Your task to perform on an android device: What is the speed of a rocket? Image 0: 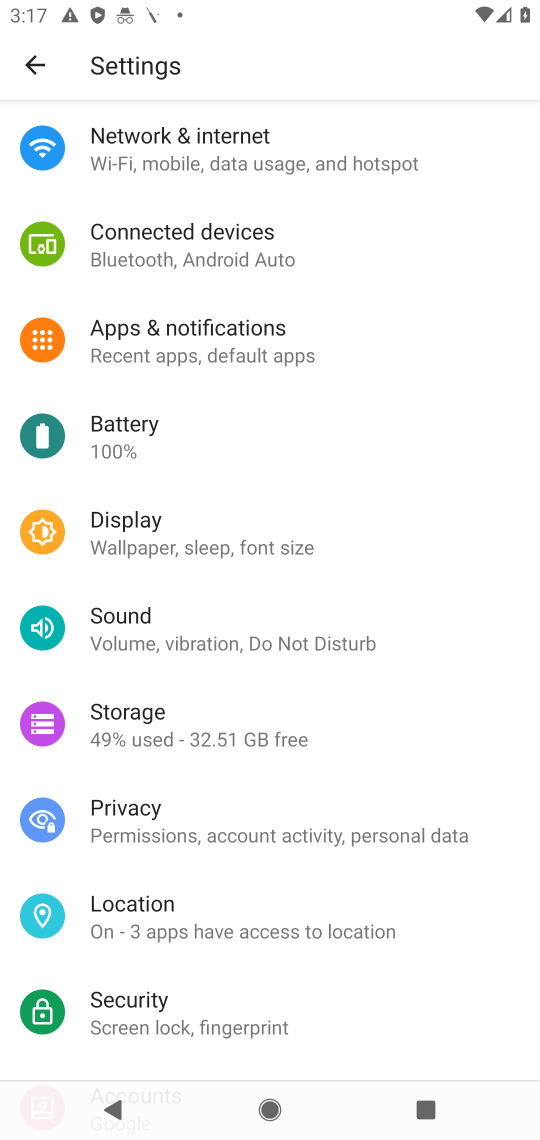
Step 0: press home button
Your task to perform on an android device: What is the speed of a rocket? Image 1: 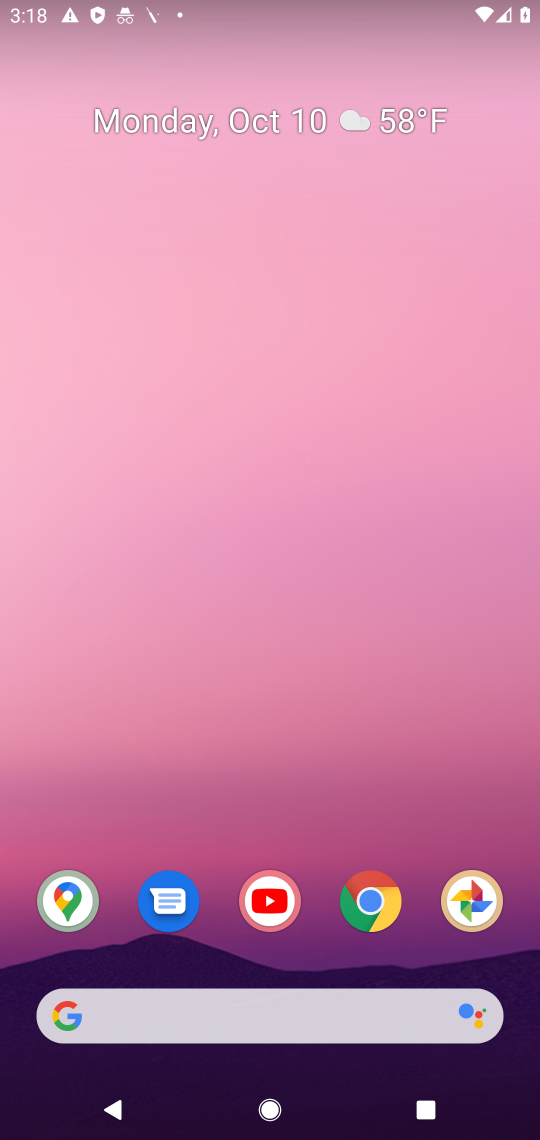
Step 1: drag from (399, 966) to (423, 445)
Your task to perform on an android device: What is the speed of a rocket? Image 2: 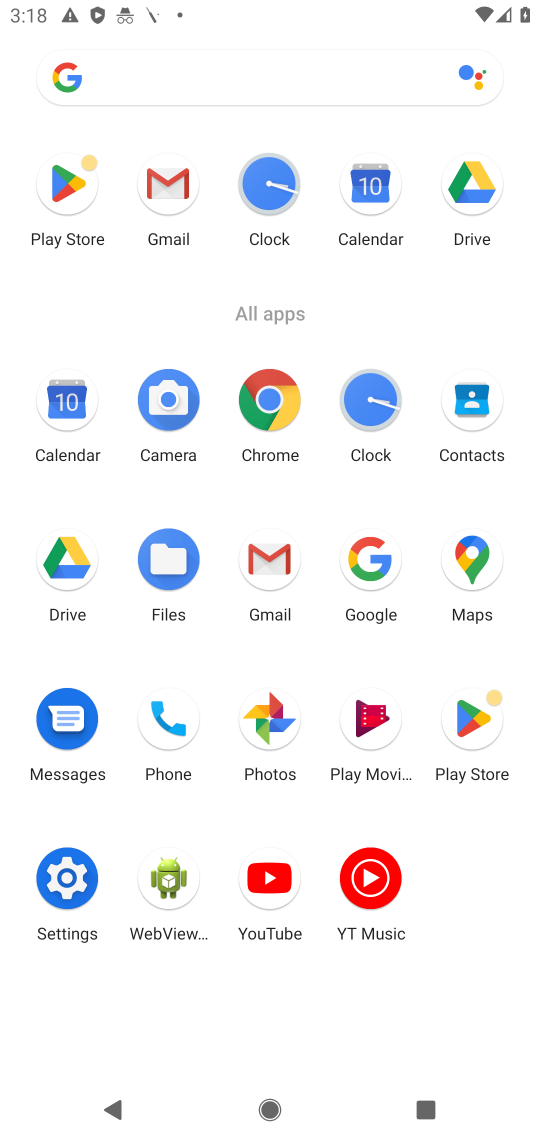
Step 2: click (361, 582)
Your task to perform on an android device: What is the speed of a rocket? Image 3: 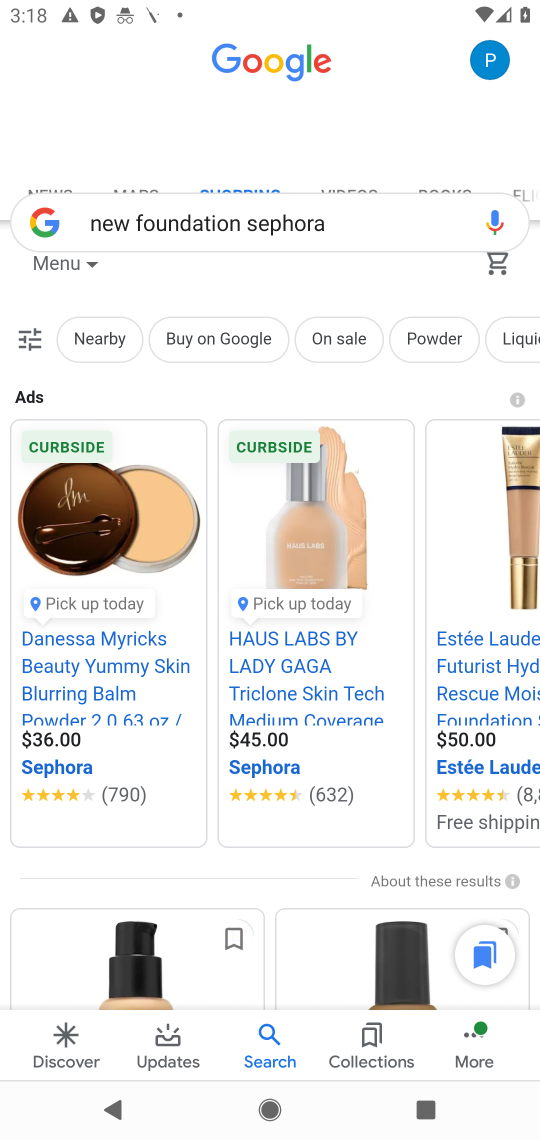
Step 3: click (380, 222)
Your task to perform on an android device: What is the speed of a rocket? Image 4: 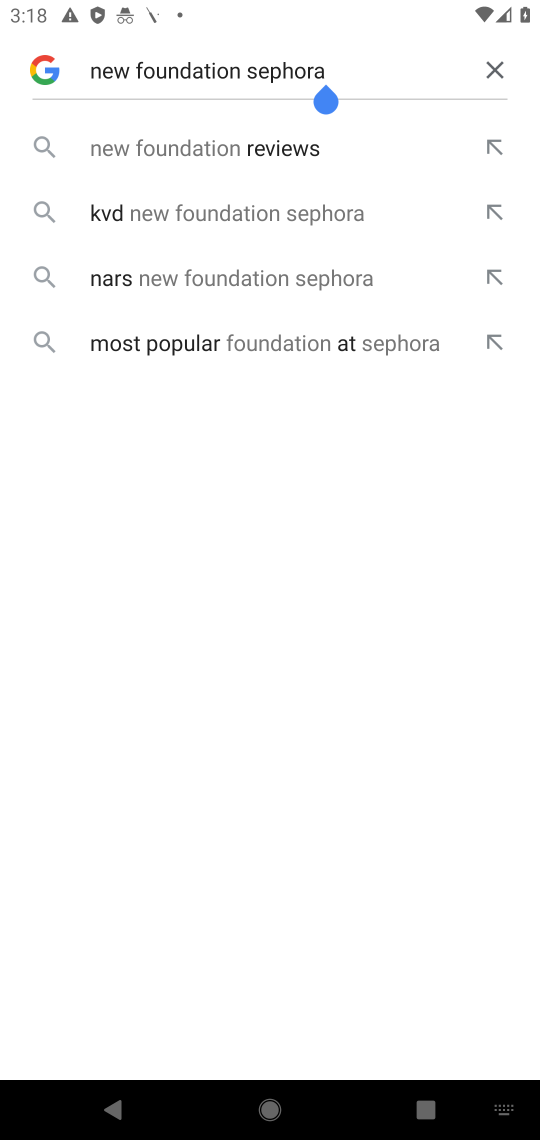
Step 4: click (497, 75)
Your task to perform on an android device: What is the speed of a rocket? Image 5: 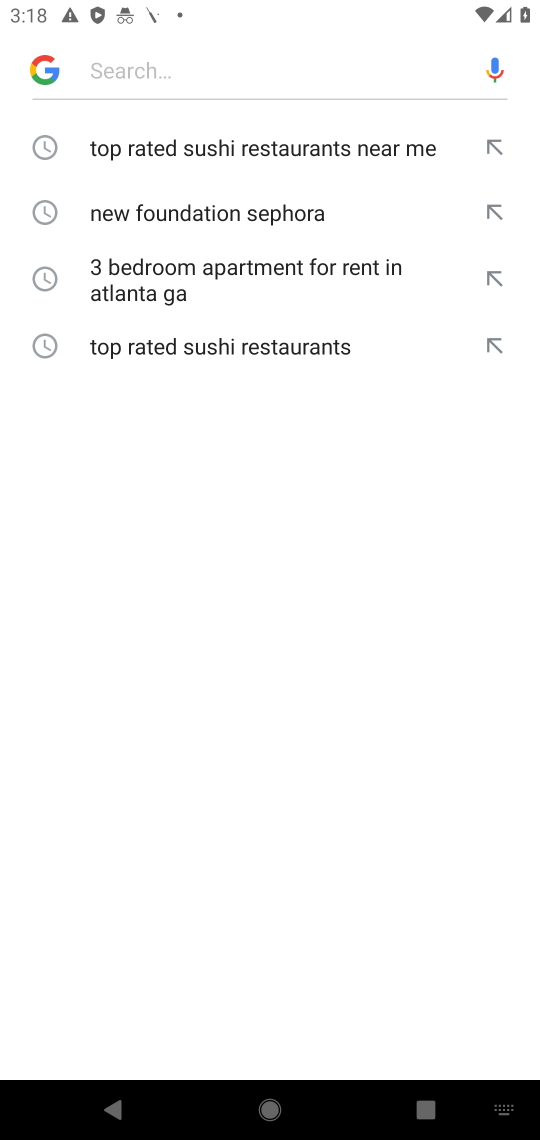
Step 5: type "What is the speed of a rocket?"
Your task to perform on an android device: What is the speed of a rocket? Image 6: 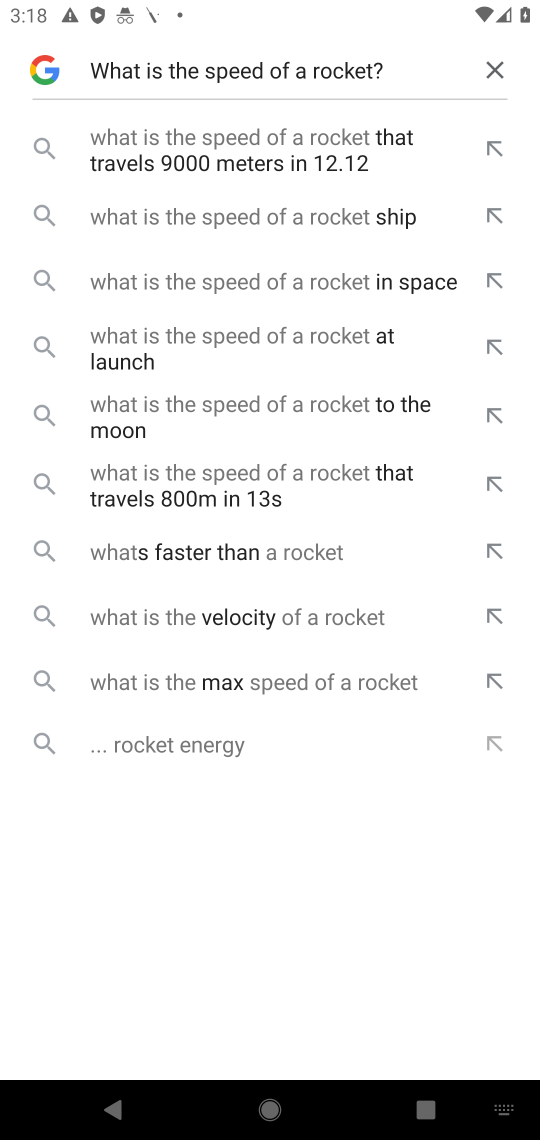
Step 6: click (287, 207)
Your task to perform on an android device: What is the speed of a rocket? Image 7: 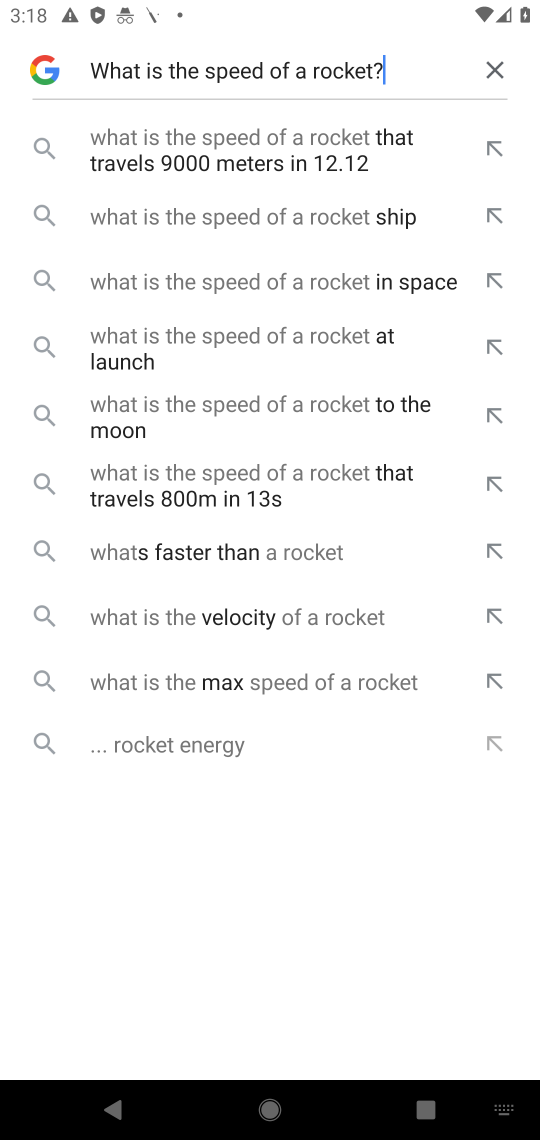
Step 7: click (287, 207)
Your task to perform on an android device: What is the speed of a rocket? Image 8: 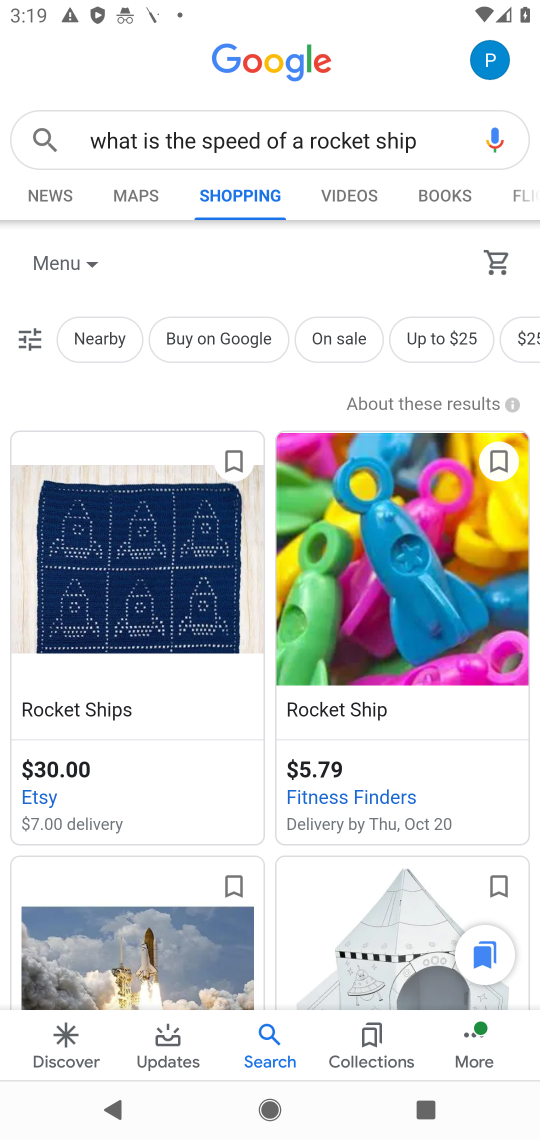
Step 8: drag from (156, 180) to (390, 213)
Your task to perform on an android device: What is the speed of a rocket? Image 9: 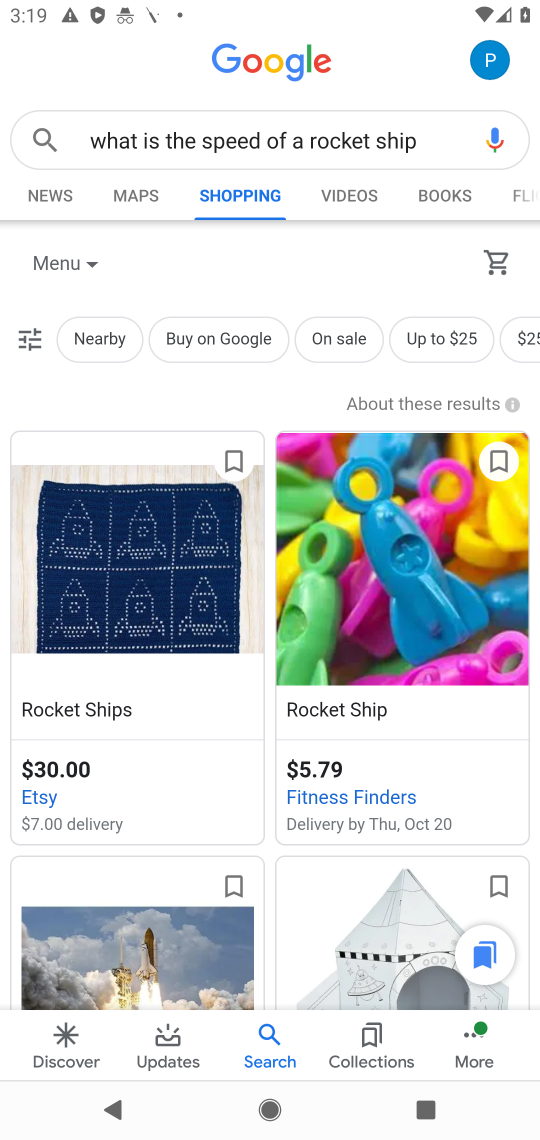
Step 9: drag from (94, 195) to (400, 182)
Your task to perform on an android device: What is the speed of a rocket? Image 10: 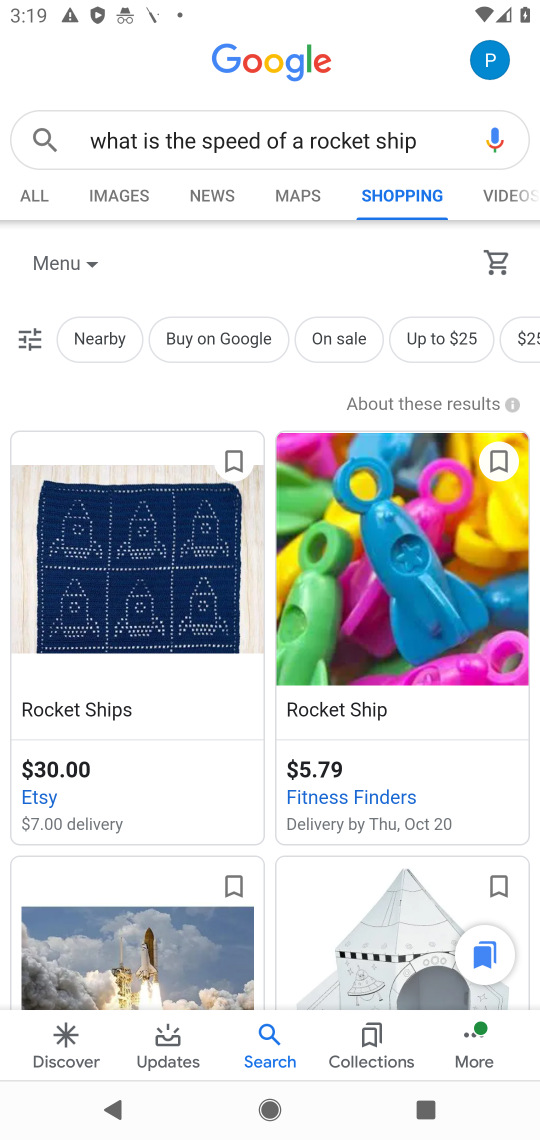
Step 10: click (10, 203)
Your task to perform on an android device: What is the speed of a rocket? Image 11: 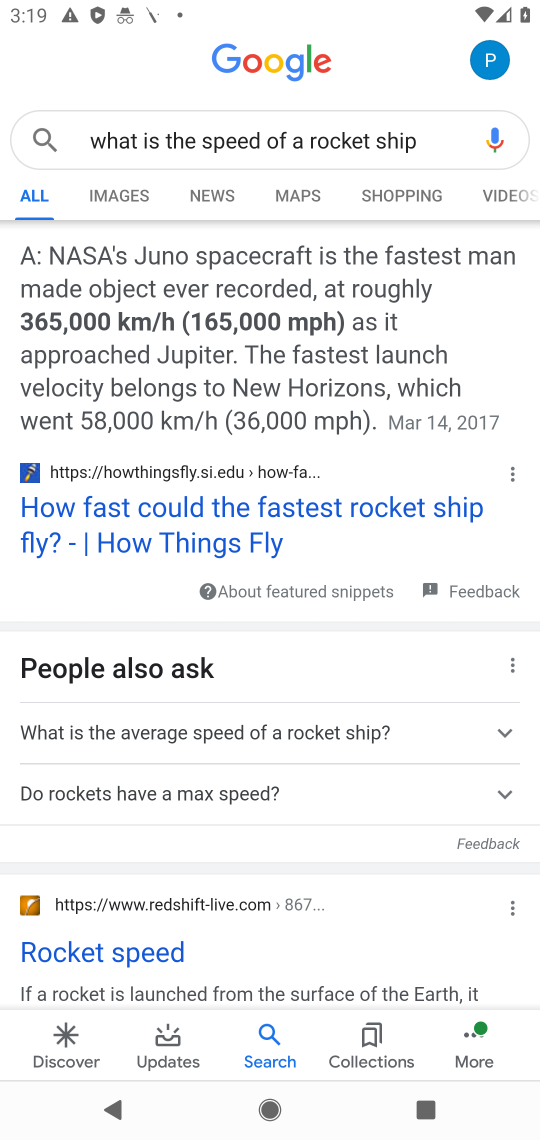
Step 11: task complete